Your task to perform on an android device: toggle javascript in the chrome app Image 0: 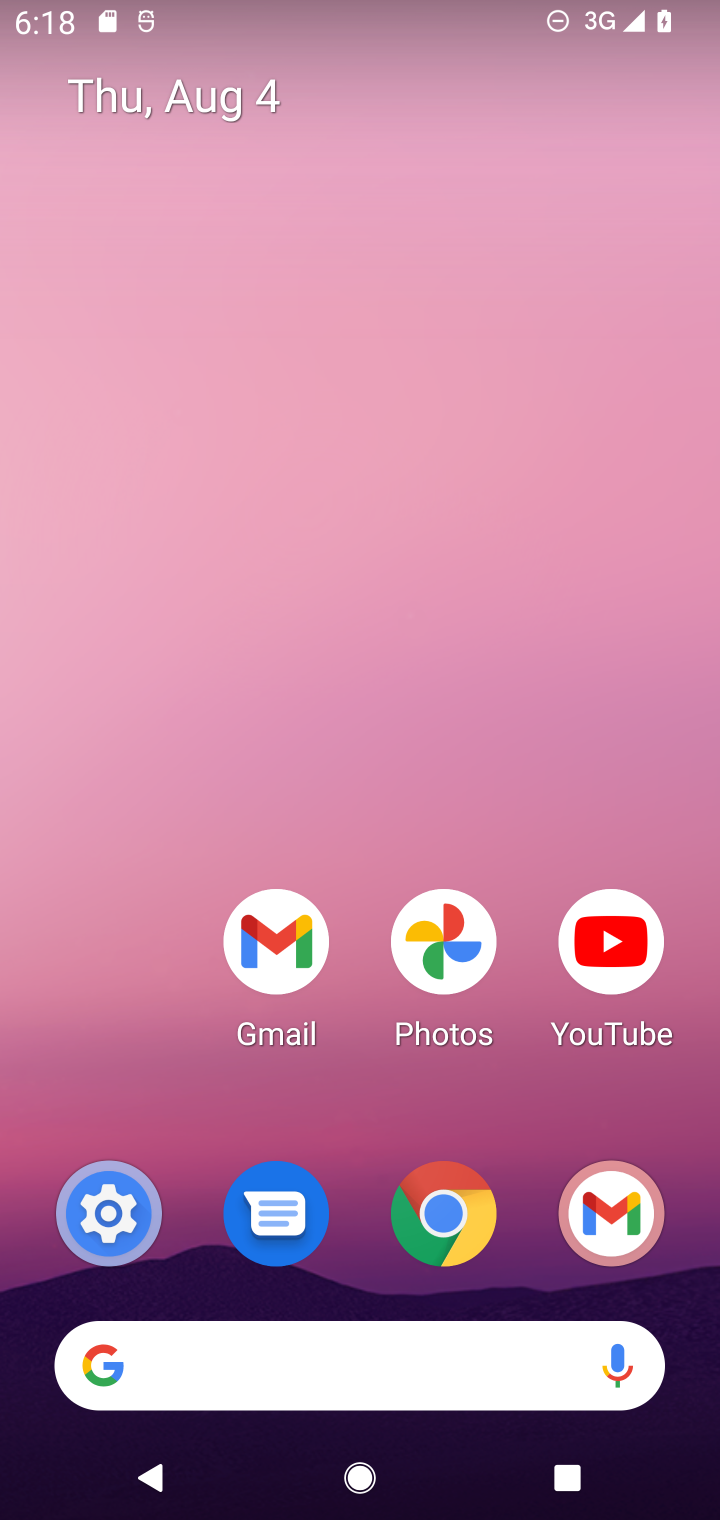
Step 0: drag from (124, 1017) to (115, 313)
Your task to perform on an android device: toggle javascript in the chrome app Image 1: 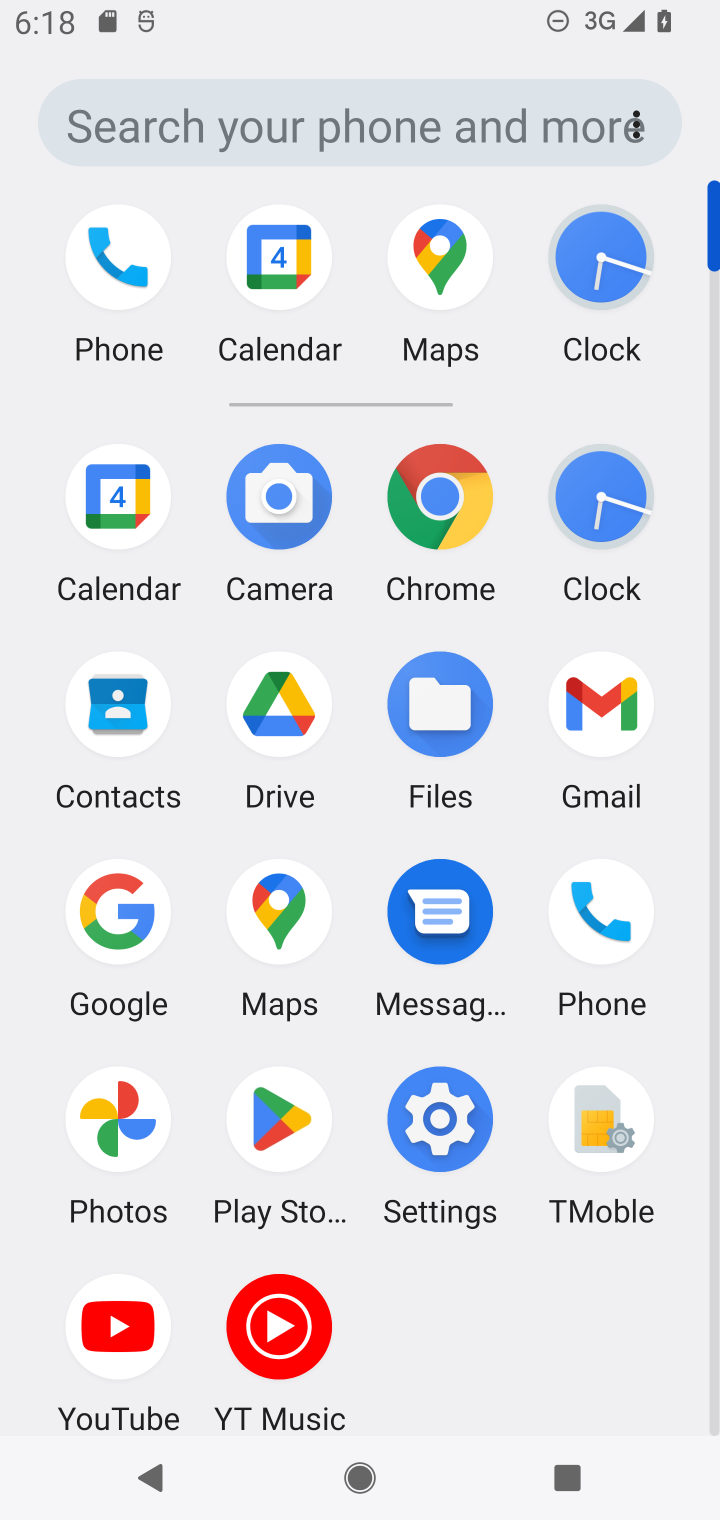
Step 1: click (471, 507)
Your task to perform on an android device: toggle javascript in the chrome app Image 2: 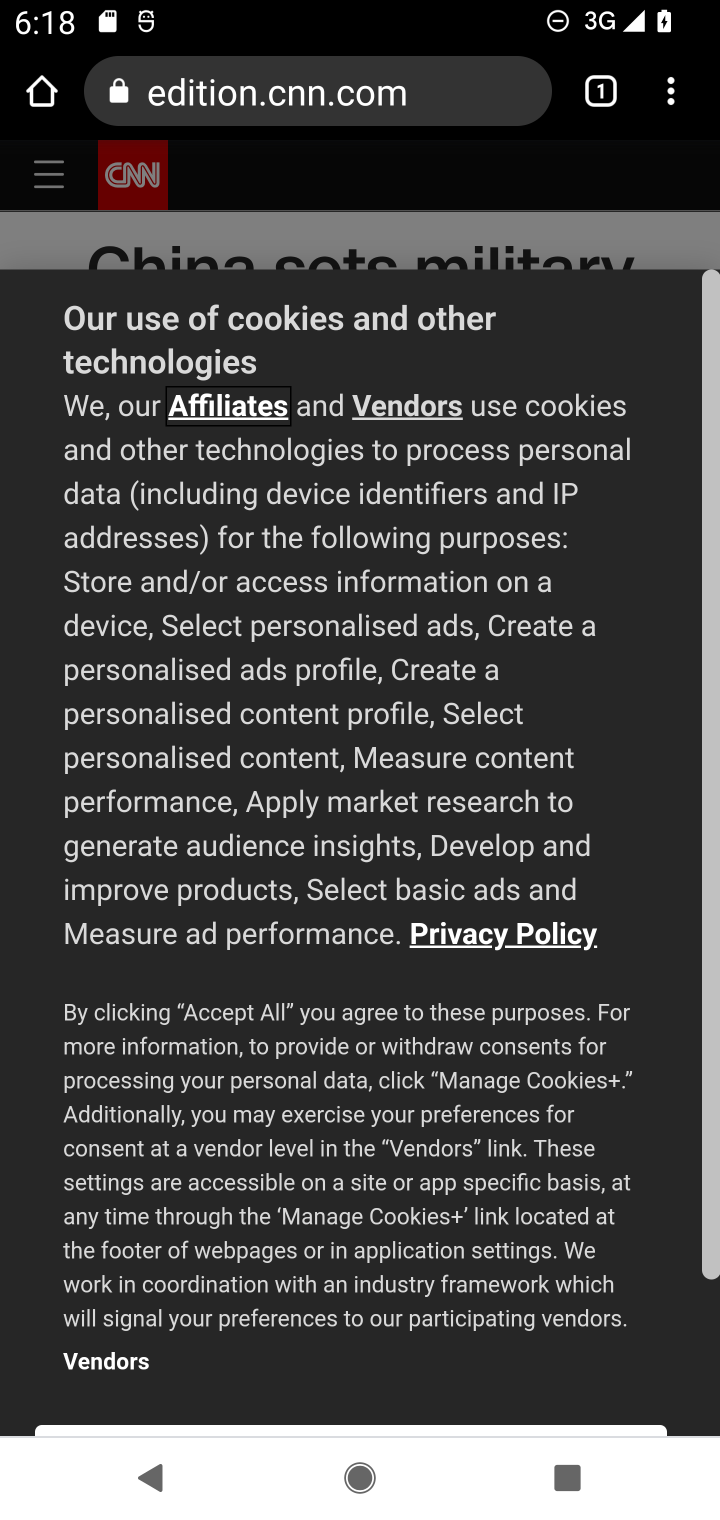
Step 2: click (670, 104)
Your task to perform on an android device: toggle javascript in the chrome app Image 3: 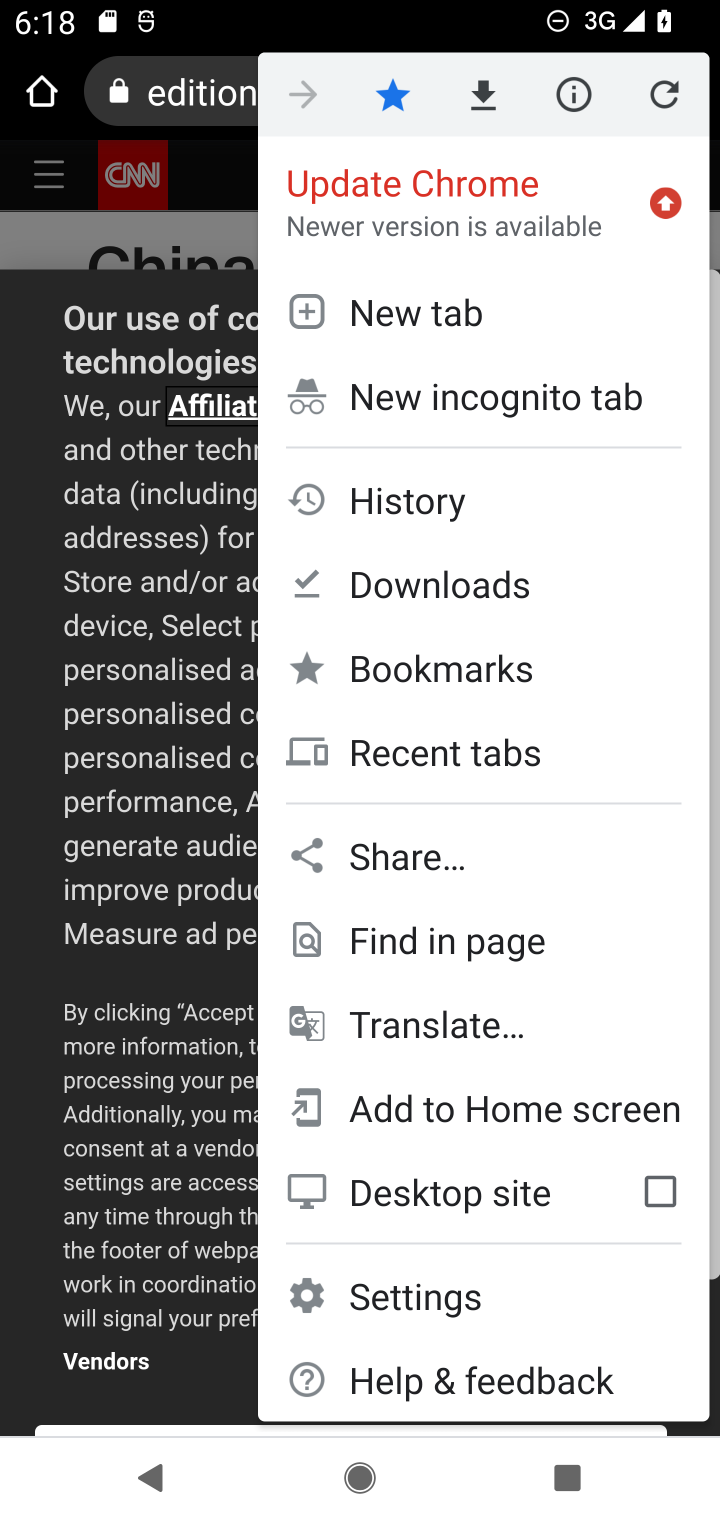
Step 3: click (421, 1289)
Your task to perform on an android device: toggle javascript in the chrome app Image 4: 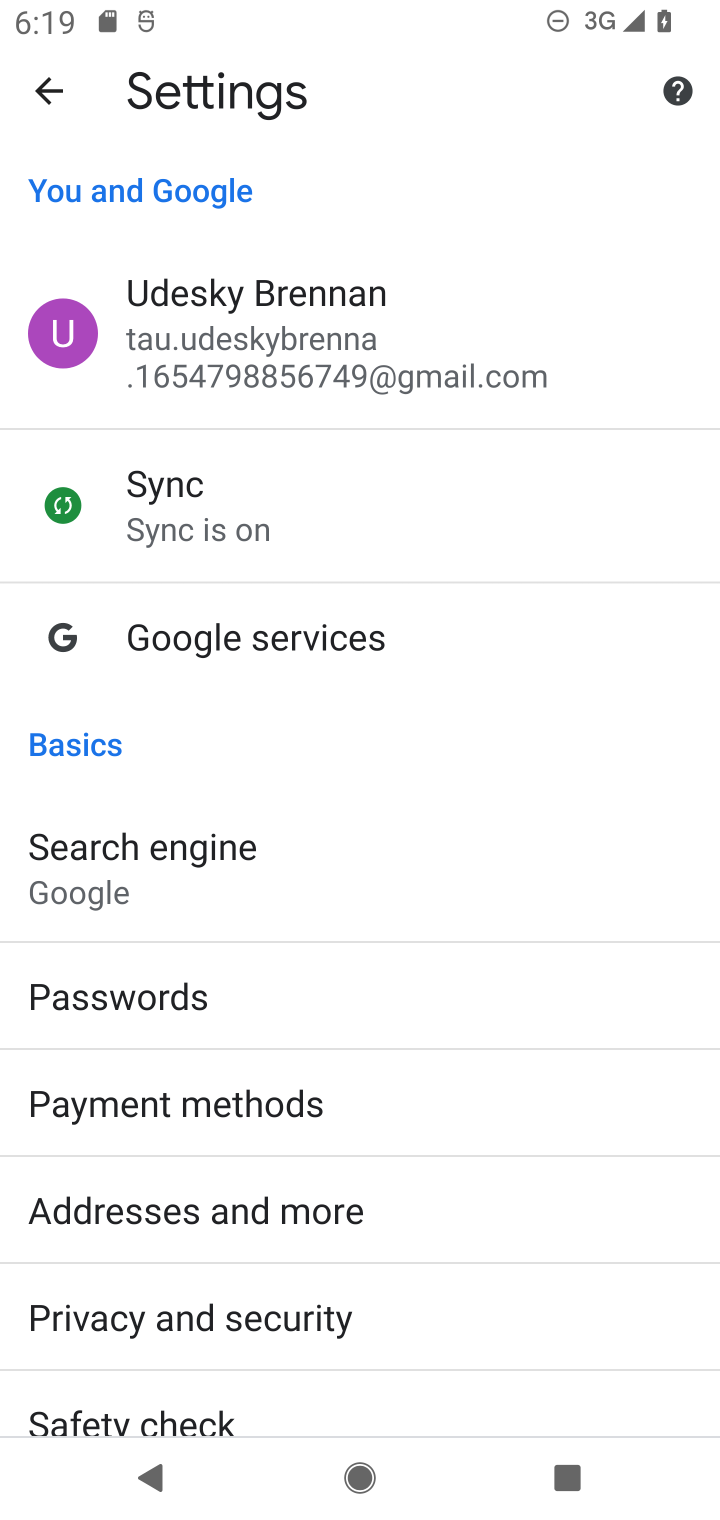
Step 4: drag from (488, 1227) to (522, 991)
Your task to perform on an android device: toggle javascript in the chrome app Image 5: 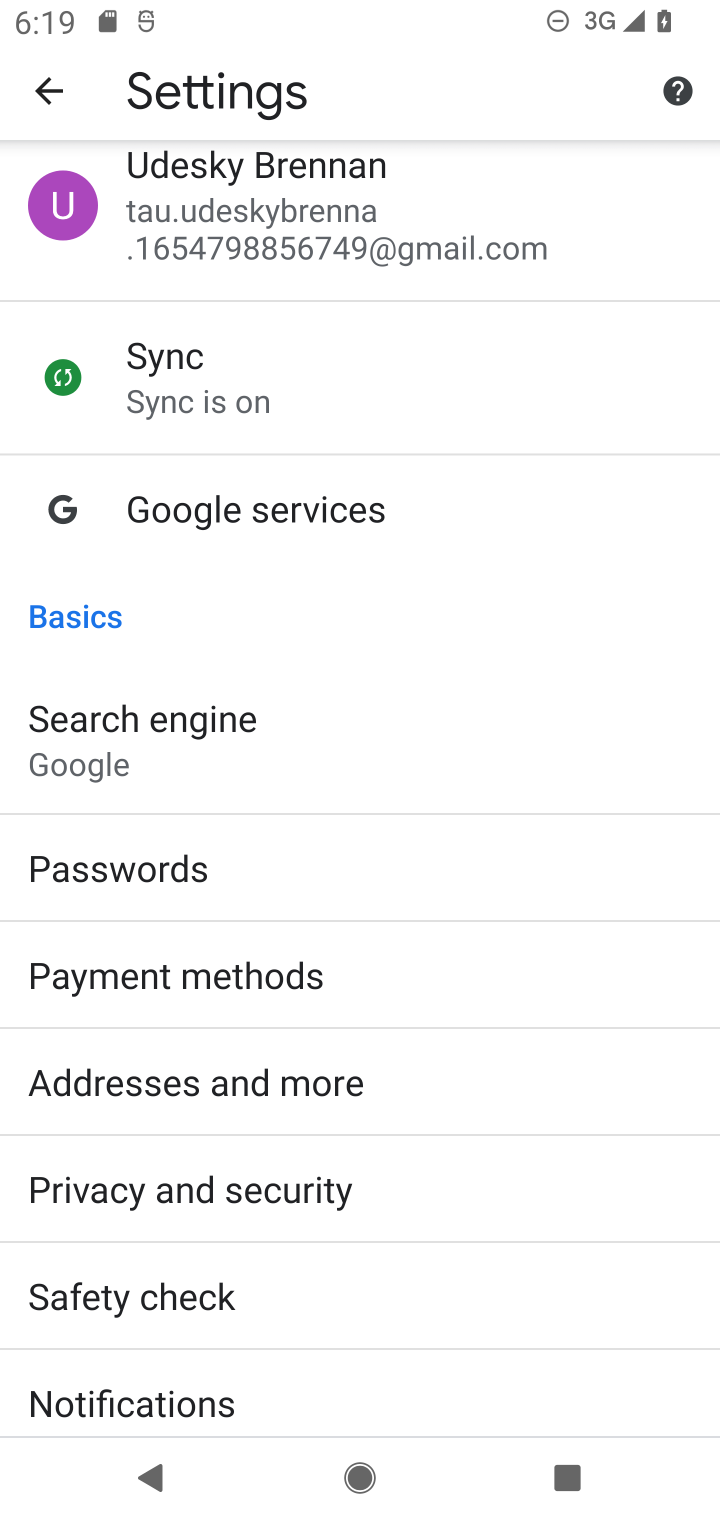
Step 5: drag from (544, 1270) to (529, 952)
Your task to perform on an android device: toggle javascript in the chrome app Image 6: 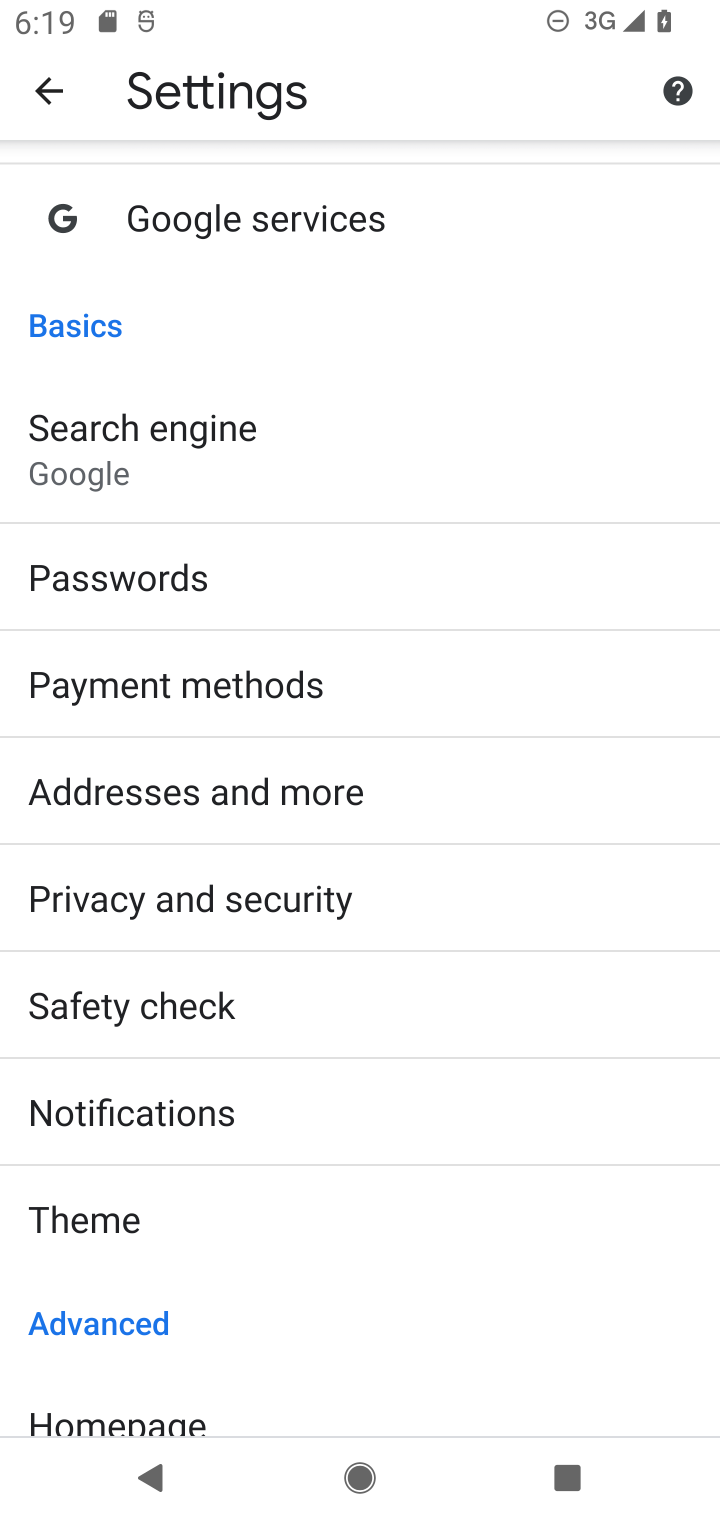
Step 6: drag from (562, 1260) to (563, 965)
Your task to perform on an android device: toggle javascript in the chrome app Image 7: 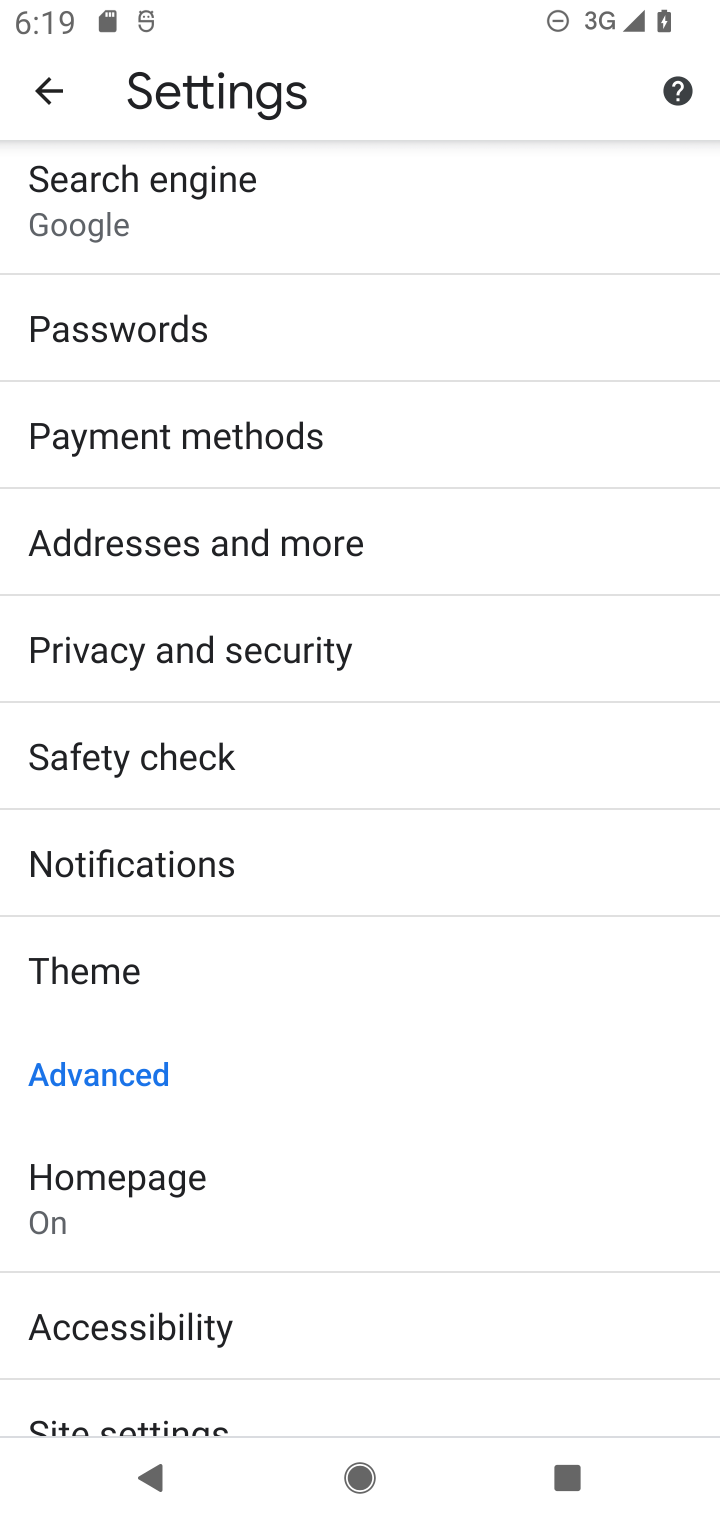
Step 7: drag from (560, 1103) to (538, 836)
Your task to perform on an android device: toggle javascript in the chrome app Image 8: 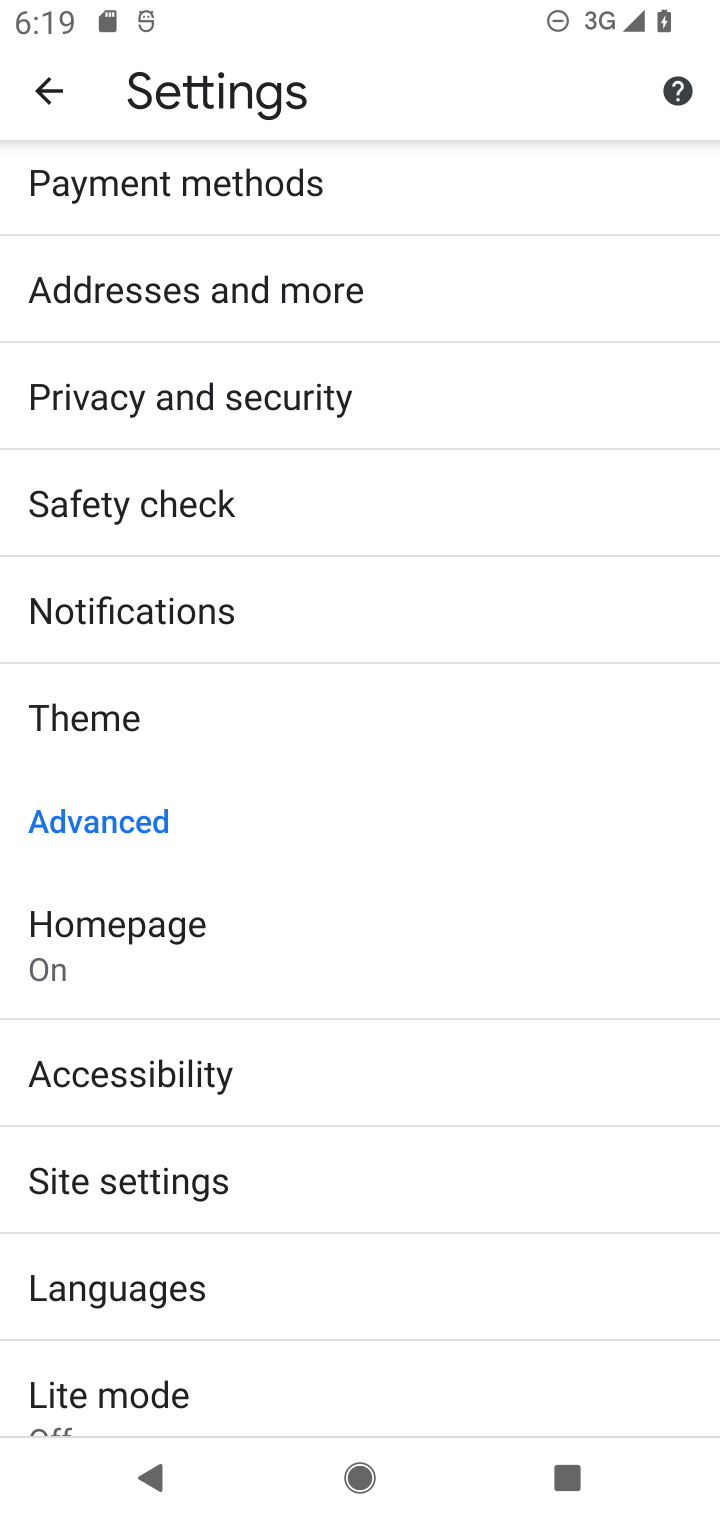
Step 8: drag from (542, 1185) to (522, 828)
Your task to perform on an android device: toggle javascript in the chrome app Image 9: 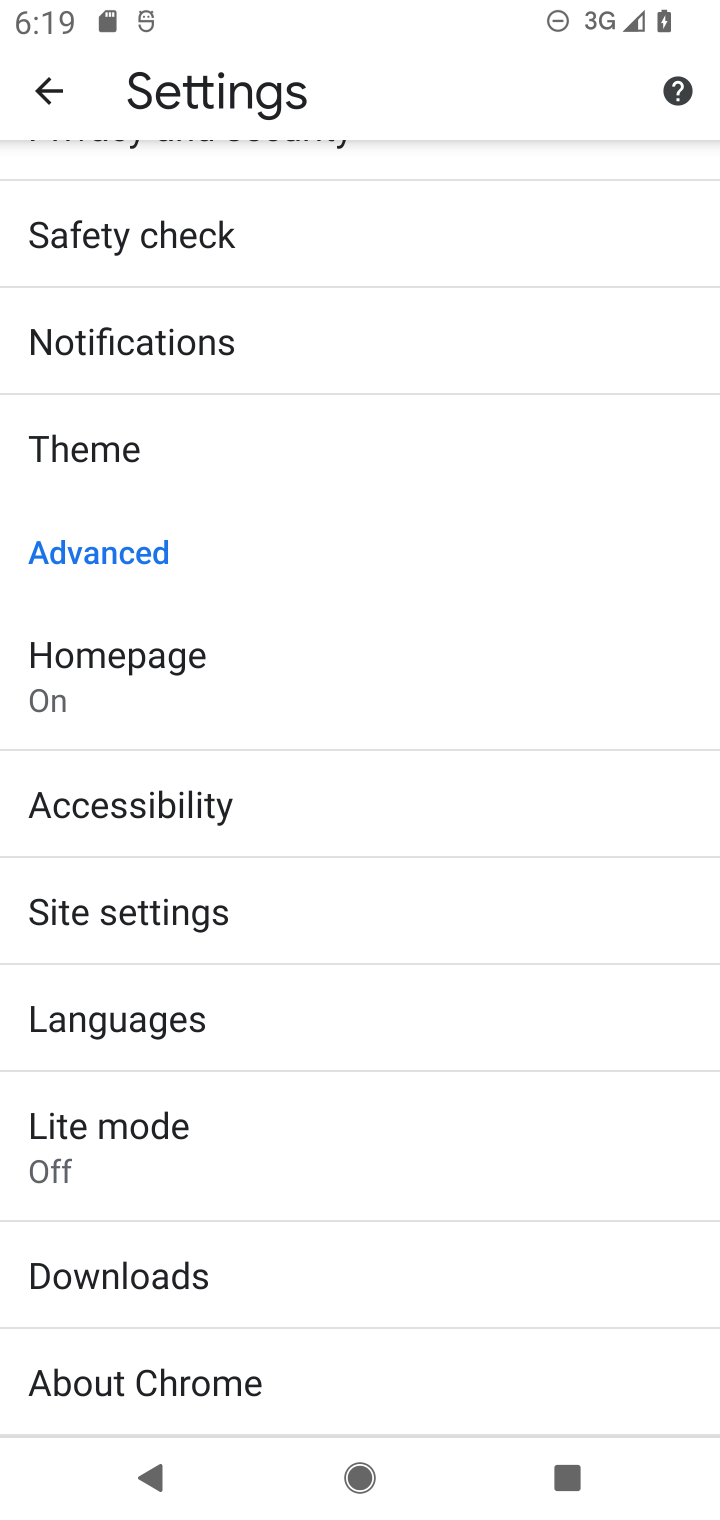
Step 9: click (522, 909)
Your task to perform on an android device: toggle javascript in the chrome app Image 10: 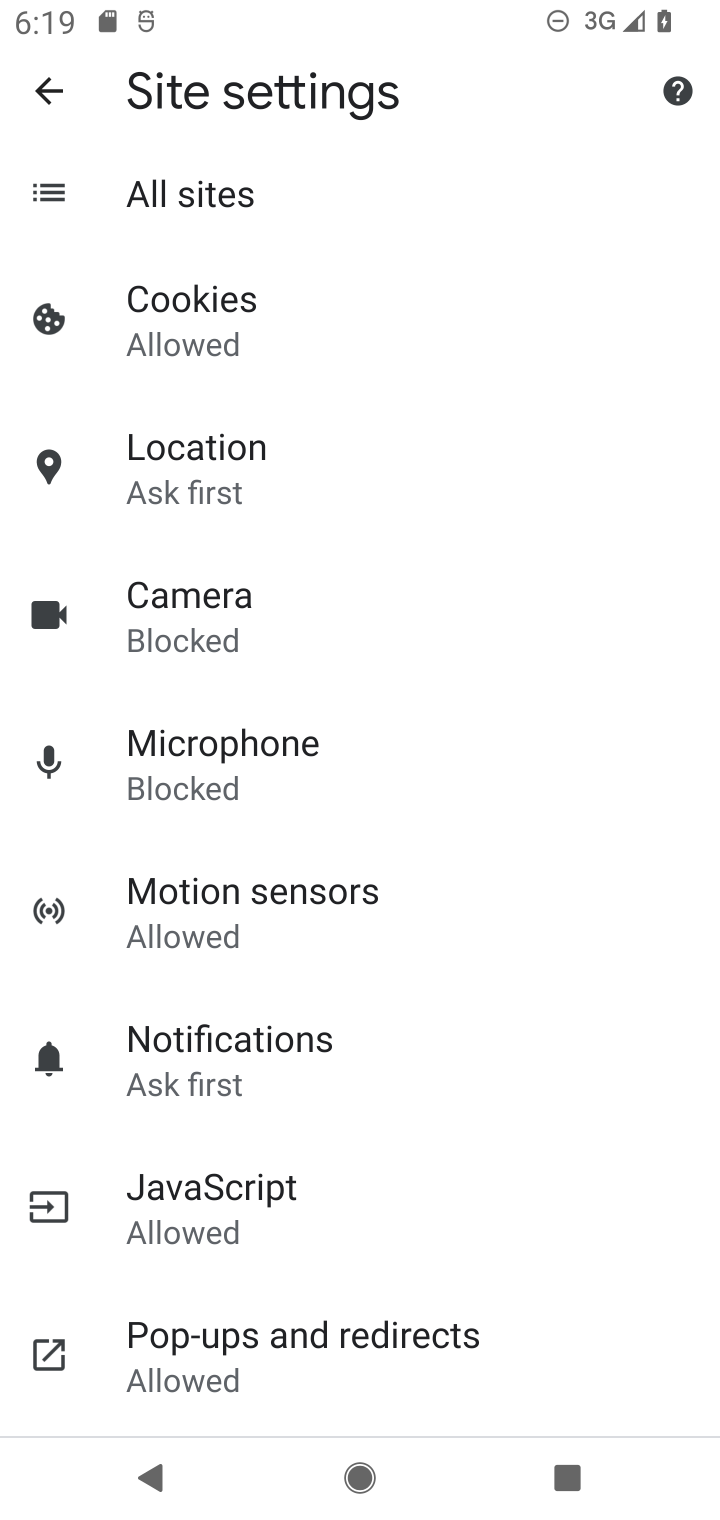
Step 10: drag from (532, 1037) to (532, 661)
Your task to perform on an android device: toggle javascript in the chrome app Image 11: 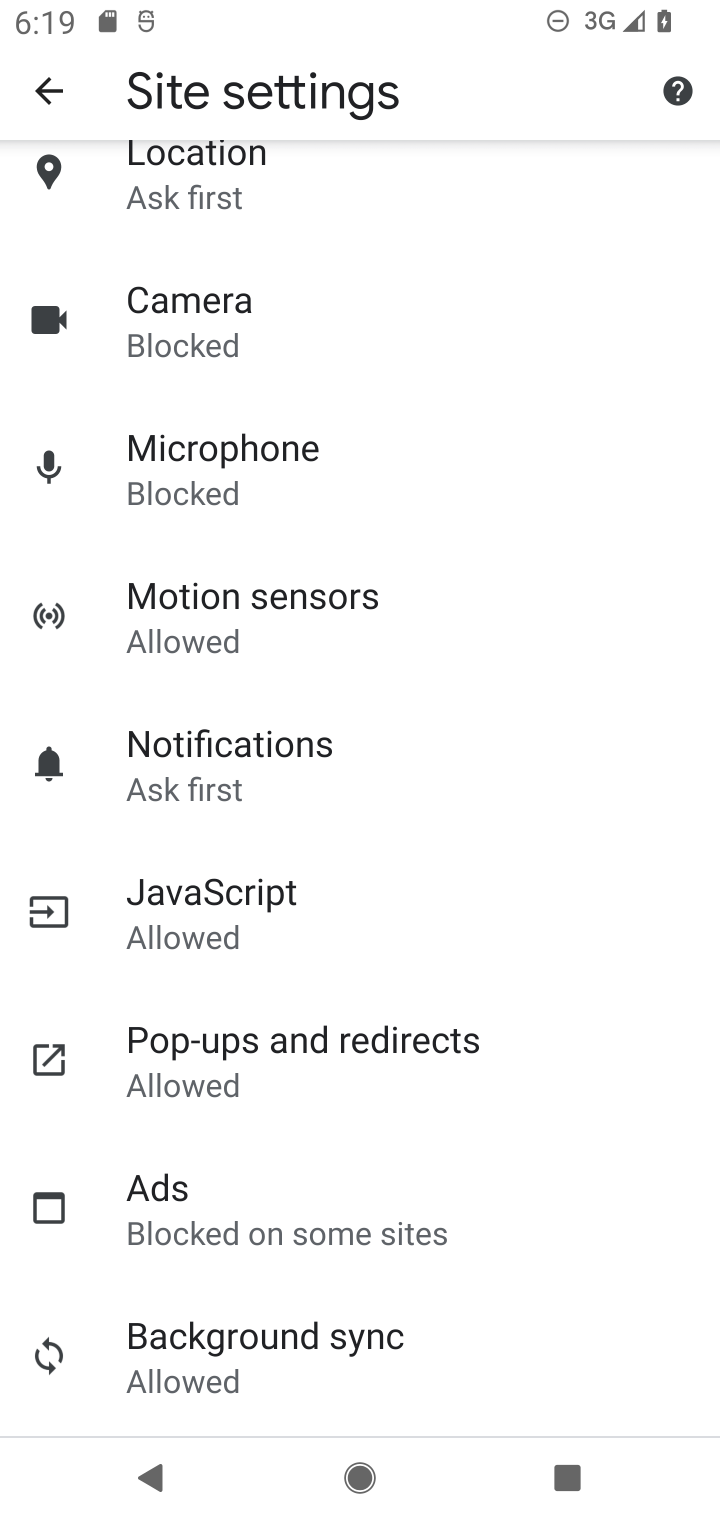
Step 11: drag from (571, 1127) to (594, 776)
Your task to perform on an android device: toggle javascript in the chrome app Image 12: 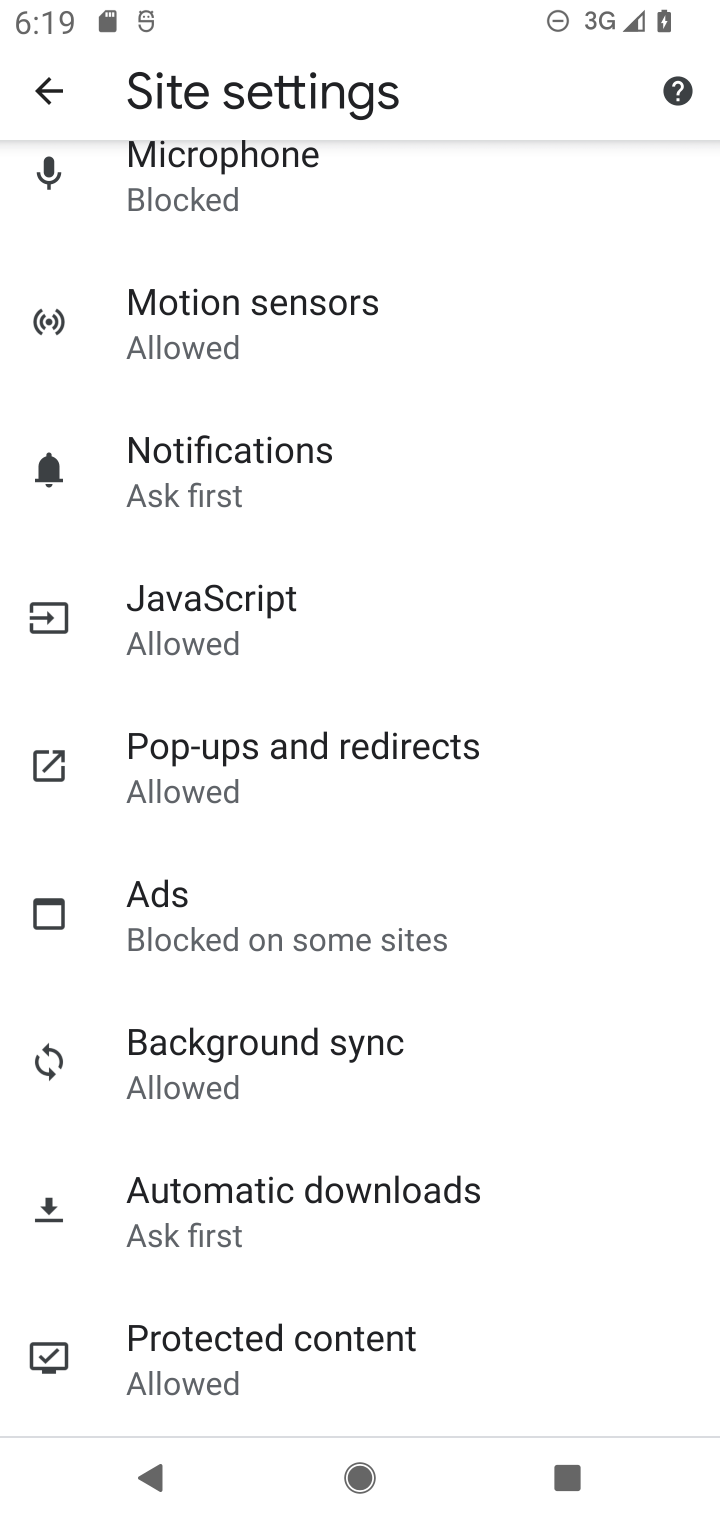
Step 12: drag from (576, 1181) to (576, 832)
Your task to perform on an android device: toggle javascript in the chrome app Image 13: 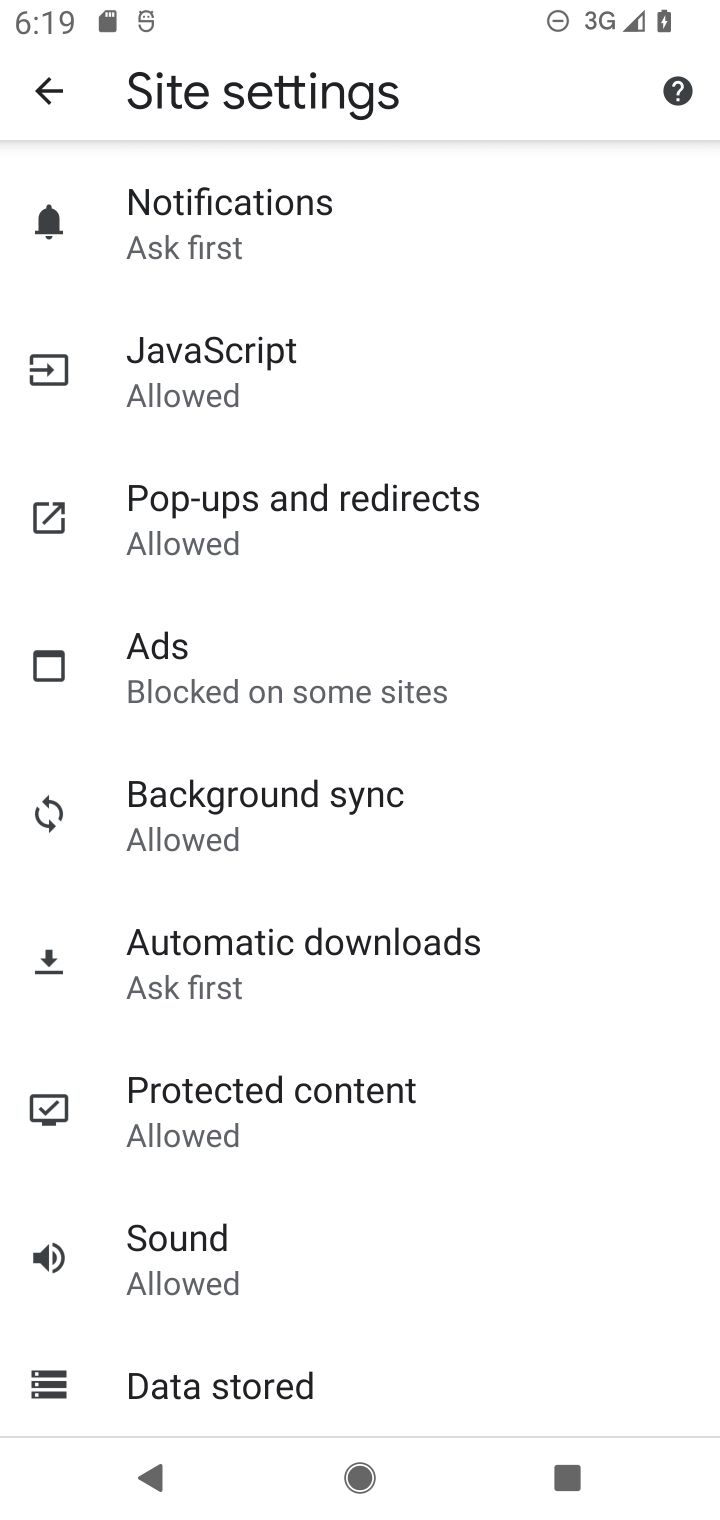
Step 13: click (289, 387)
Your task to perform on an android device: toggle javascript in the chrome app Image 14: 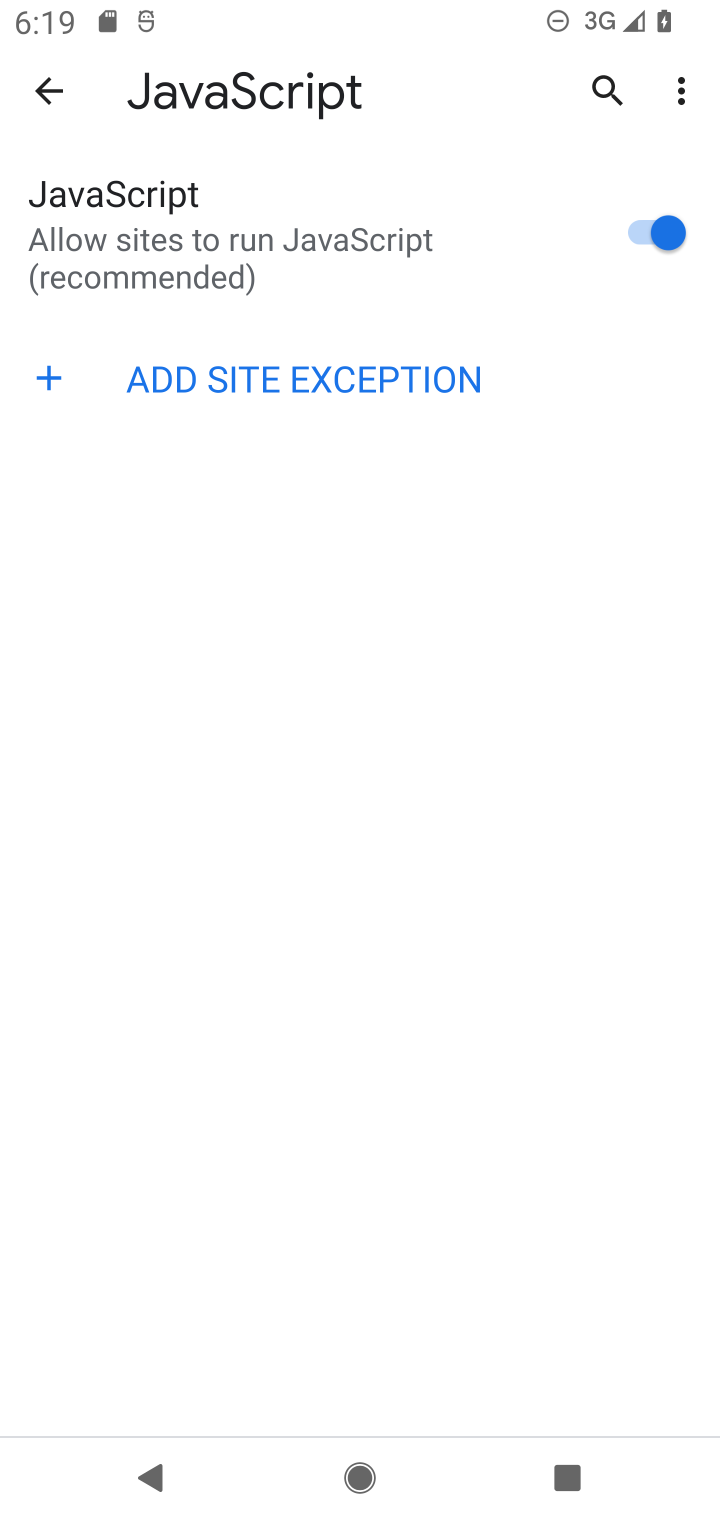
Step 14: task complete